Your task to perform on an android device: Open CNN.com Image 0: 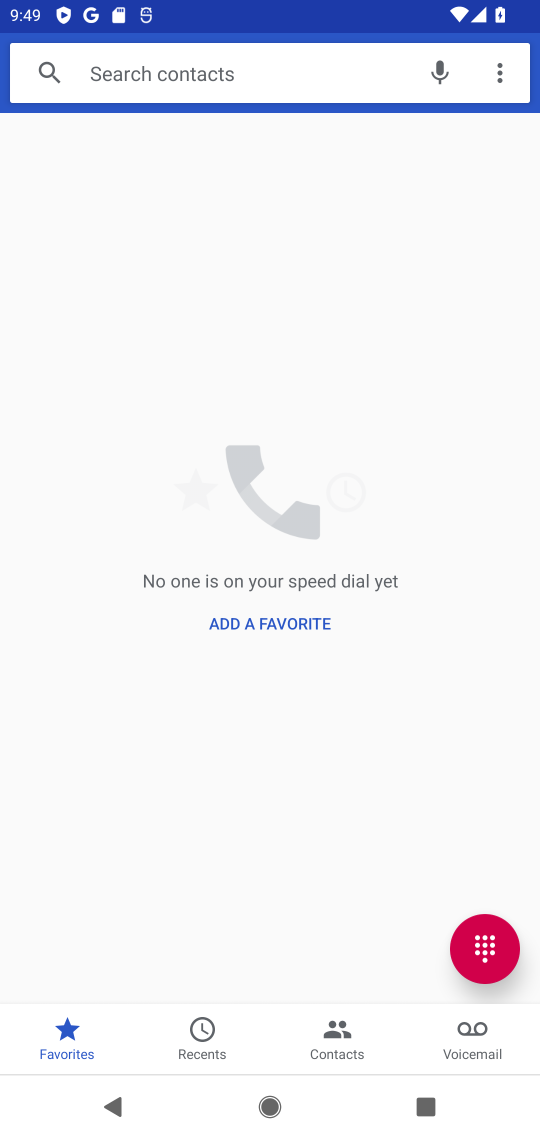
Step 0: press home button
Your task to perform on an android device: Open CNN.com Image 1: 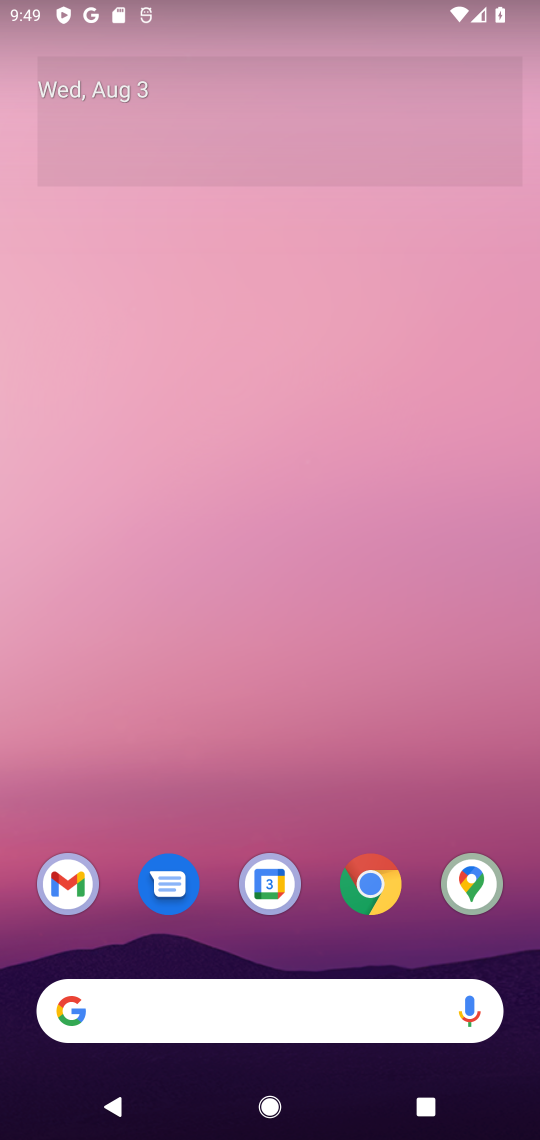
Step 1: click (75, 1021)
Your task to perform on an android device: Open CNN.com Image 2: 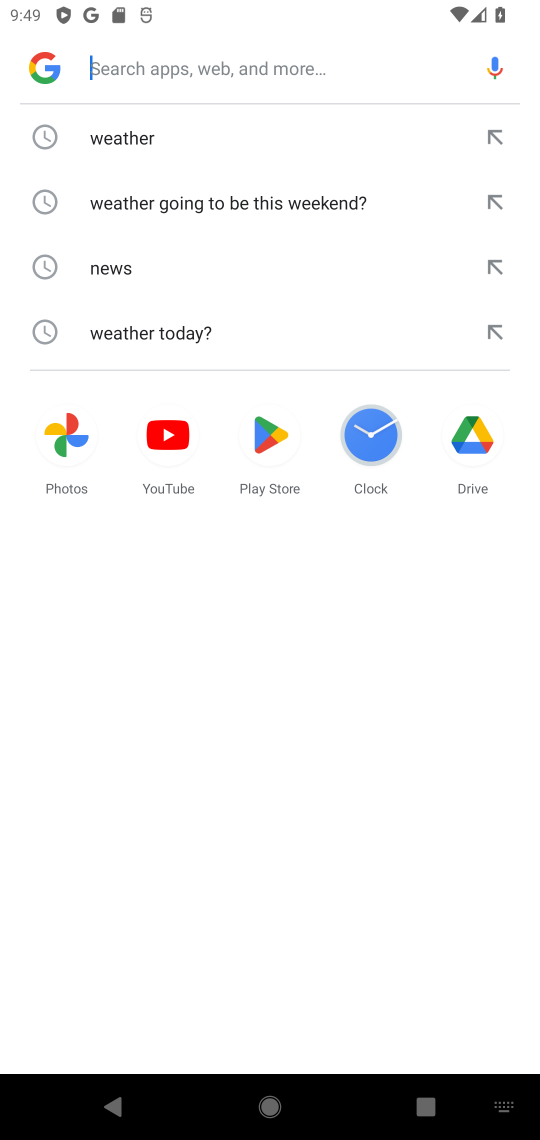
Step 2: type "CNN.com"
Your task to perform on an android device: Open CNN.com Image 3: 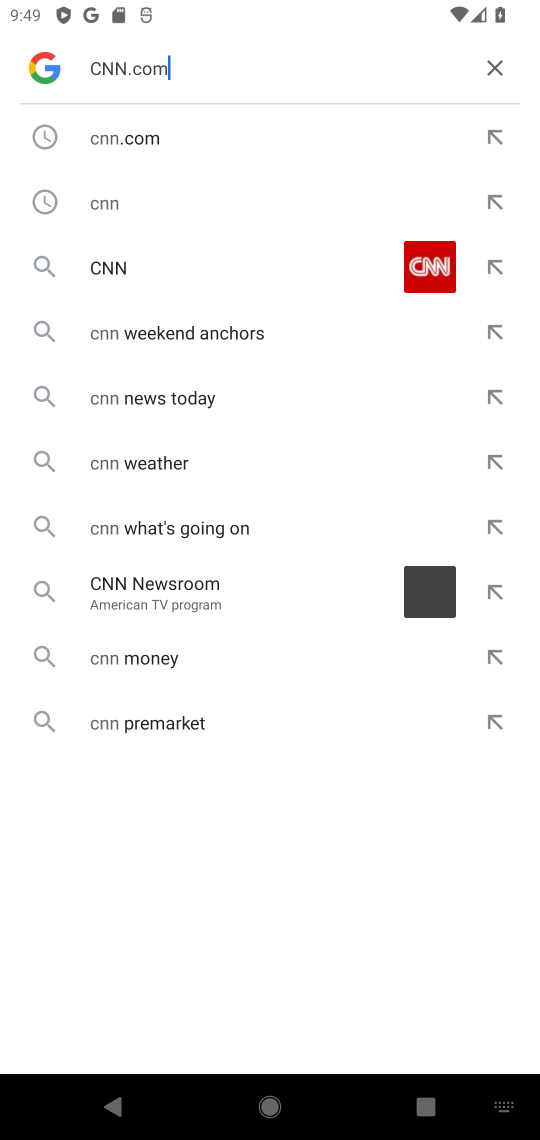
Step 3: press enter
Your task to perform on an android device: Open CNN.com Image 4: 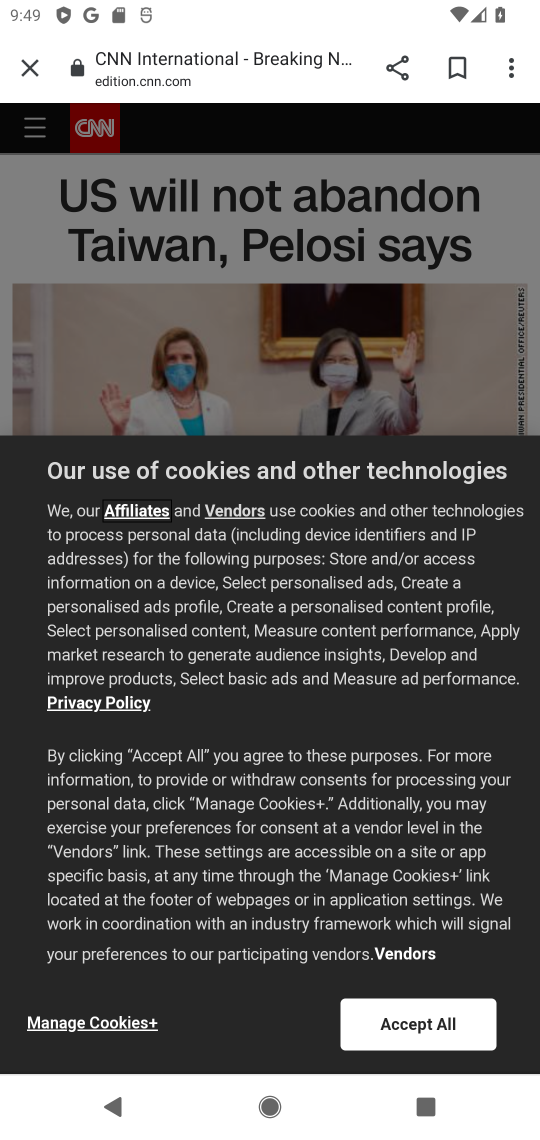
Step 4: task complete